Your task to perform on an android device: turn on showing notifications on the lock screen Image 0: 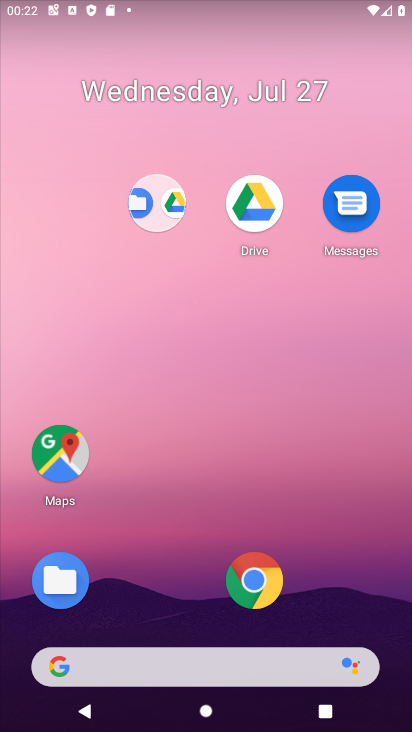
Step 0: drag from (112, 319) to (83, 118)
Your task to perform on an android device: turn on showing notifications on the lock screen Image 1: 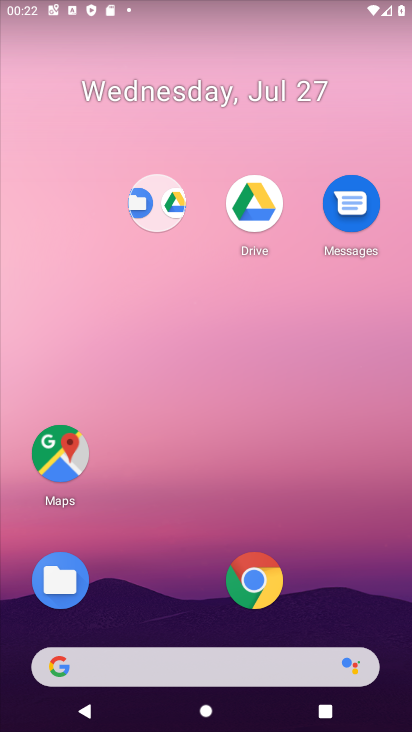
Step 1: drag from (184, 563) to (158, 57)
Your task to perform on an android device: turn on showing notifications on the lock screen Image 2: 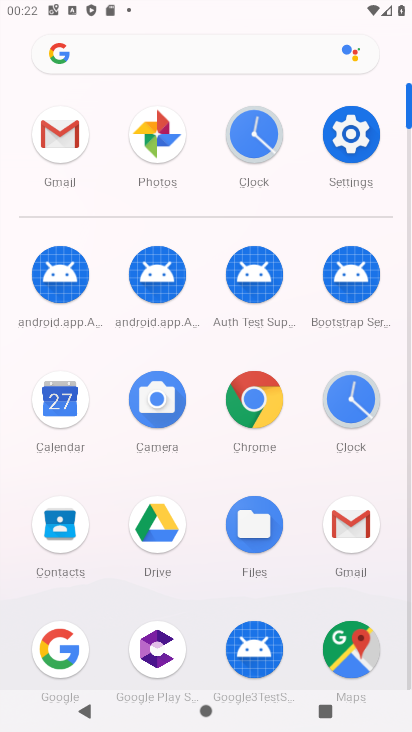
Step 2: click (336, 131)
Your task to perform on an android device: turn on showing notifications on the lock screen Image 3: 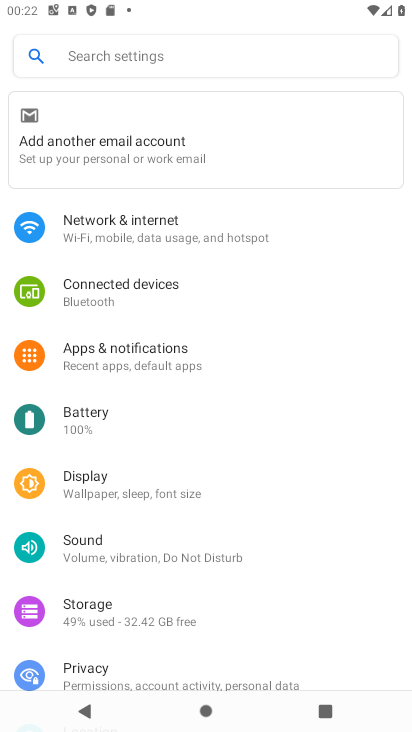
Step 3: click (129, 359)
Your task to perform on an android device: turn on showing notifications on the lock screen Image 4: 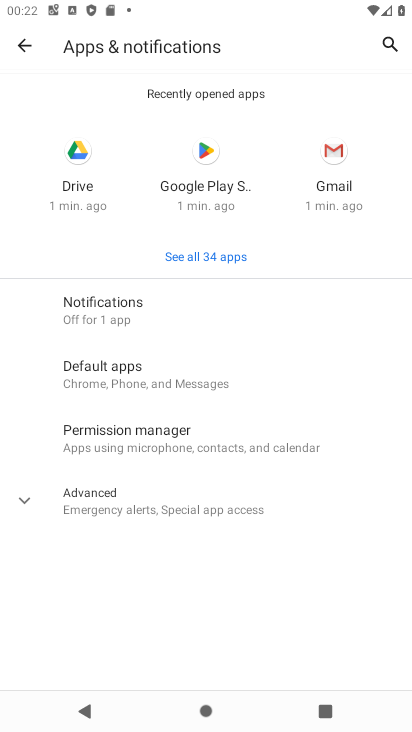
Step 4: click (123, 519)
Your task to perform on an android device: turn on showing notifications on the lock screen Image 5: 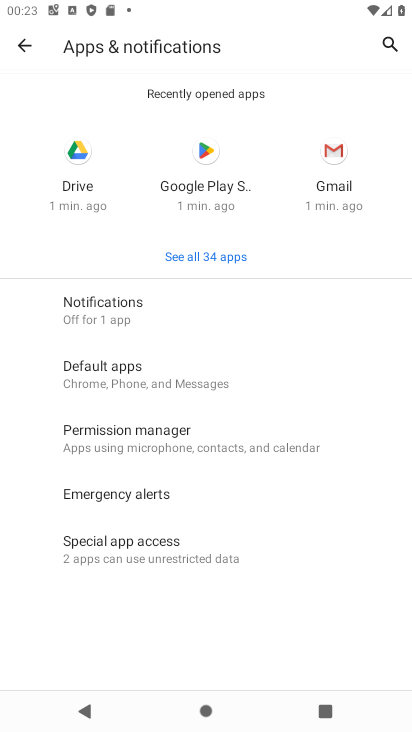
Step 5: click (122, 305)
Your task to perform on an android device: turn on showing notifications on the lock screen Image 6: 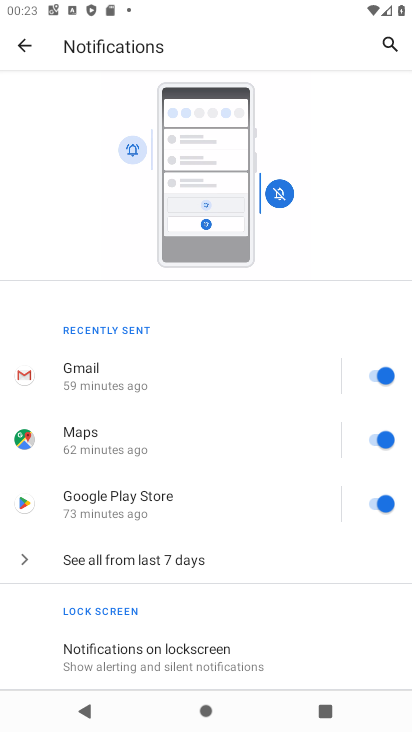
Step 6: click (206, 314)
Your task to perform on an android device: turn on showing notifications on the lock screen Image 7: 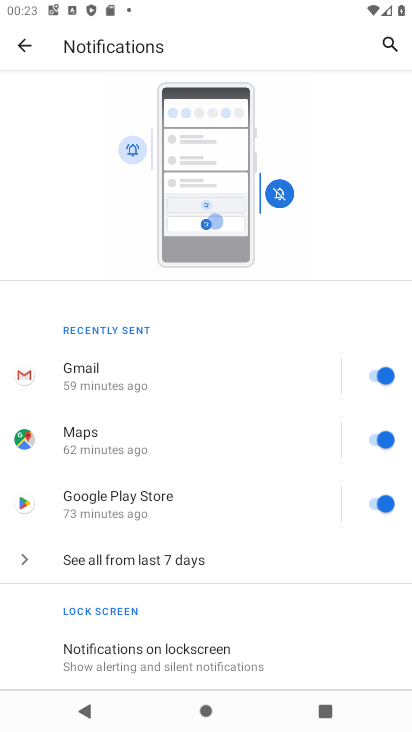
Step 7: click (206, 314)
Your task to perform on an android device: turn on showing notifications on the lock screen Image 8: 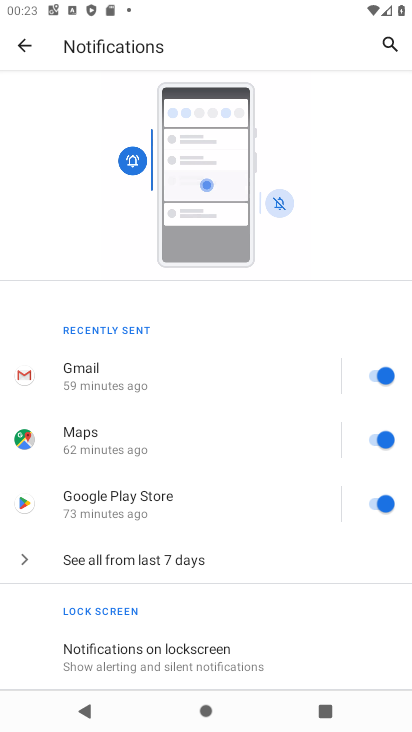
Step 8: click (122, 669)
Your task to perform on an android device: turn on showing notifications on the lock screen Image 9: 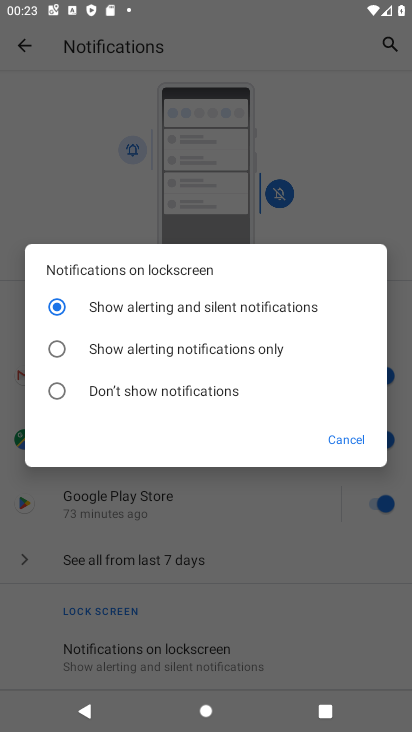
Step 9: task complete